Your task to perform on an android device: move a message to another label in the gmail app Image 0: 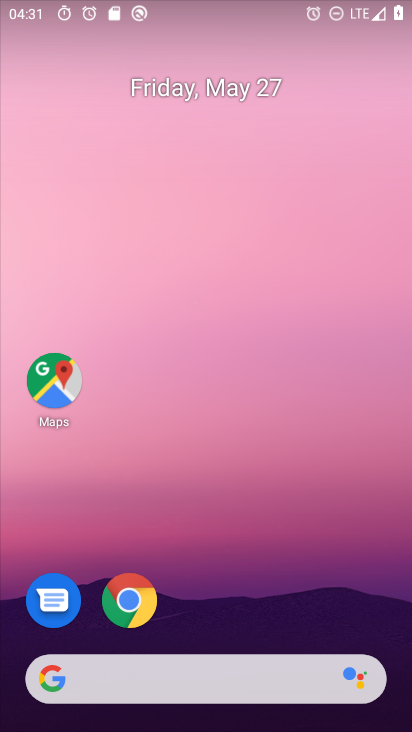
Step 0: drag from (212, 726) to (206, 172)
Your task to perform on an android device: move a message to another label in the gmail app Image 1: 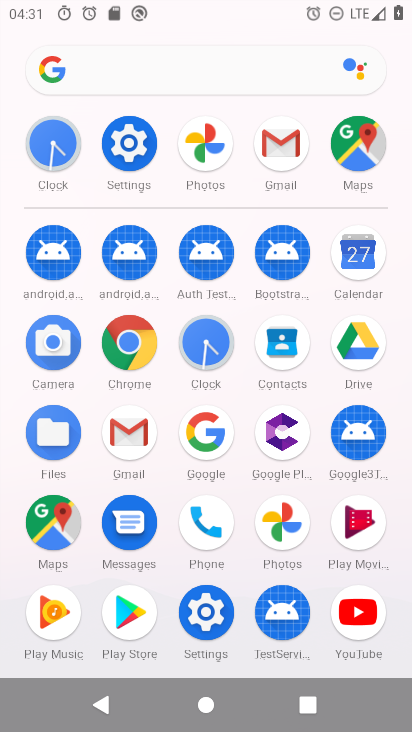
Step 1: click (126, 438)
Your task to perform on an android device: move a message to another label in the gmail app Image 2: 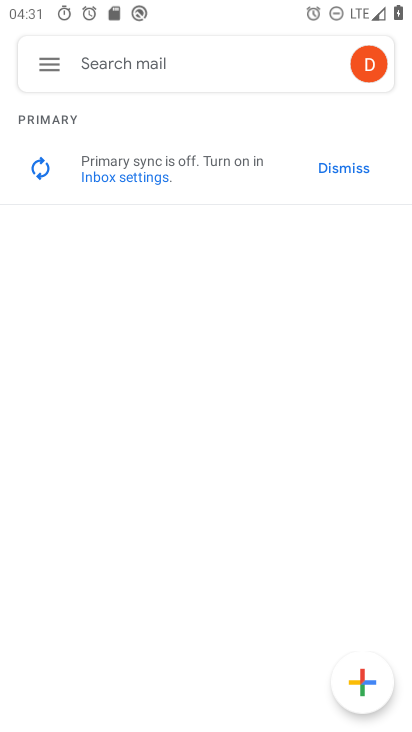
Step 2: task complete